Your task to perform on an android device: open device folders in google photos Image 0: 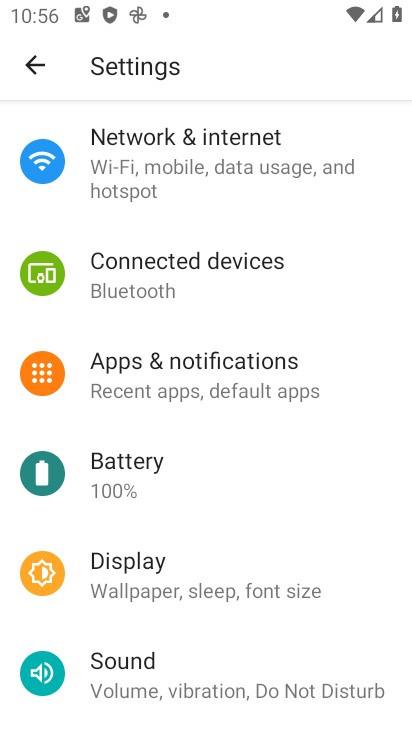
Step 0: press home button
Your task to perform on an android device: open device folders in google photos Image 1: 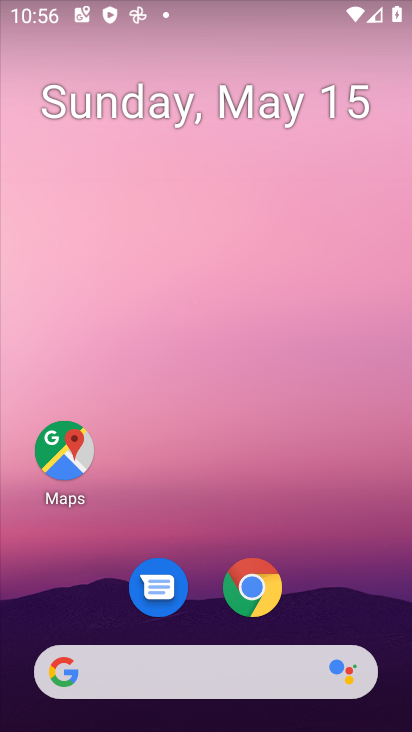
Step 1: drag from (379, 649) to (324, 114)
Your task to perform on an android device: open device folders in google photos Image 2: 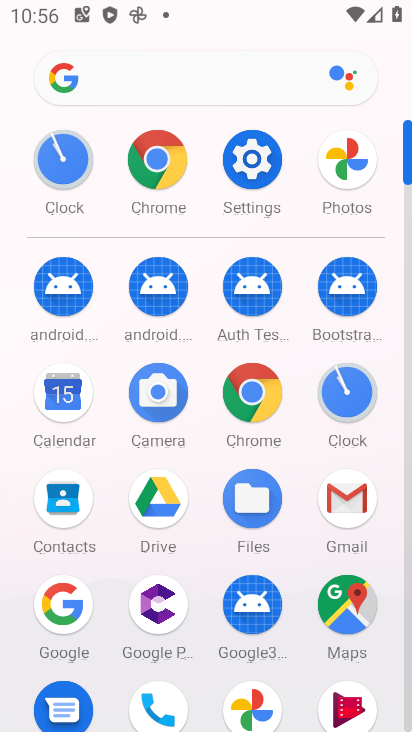
Step 2: click (249, 701)
Your task to perform on an android device: open device folders in google photos Image 3: 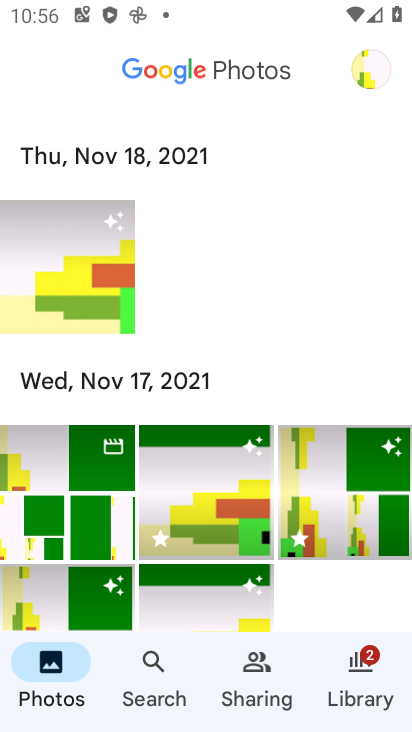
Step 3: task complete